Your task to perform on an android device: turn off smart reply in the gmail app Image 0: 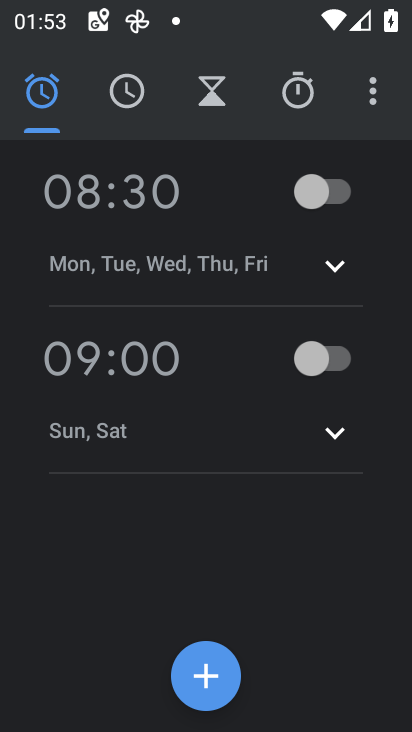
Step 0: press home button
Your task to perform on an android device: turn off smart reply in the gmail app Image 1: 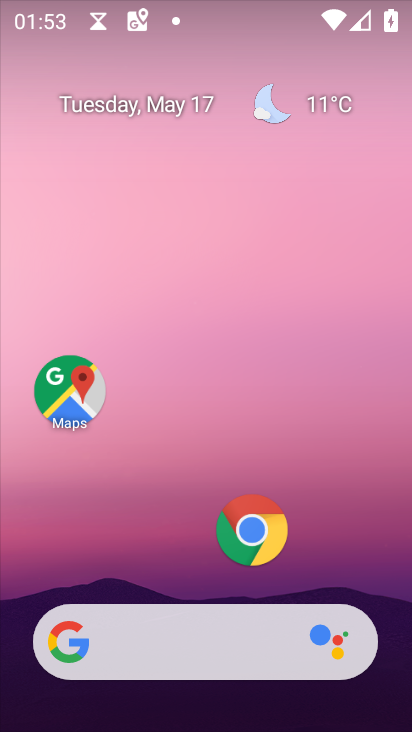
Step 1: drag from (315, 572) to (271, 314)
Your task to perform on an android device: turn off smart reply in the gmail app Image 2: 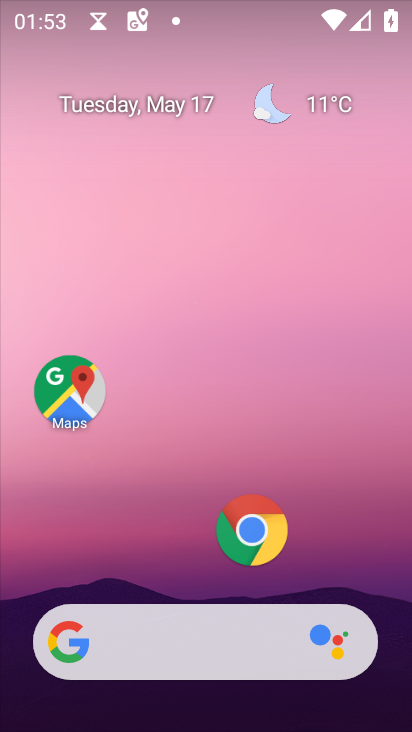
Step 2: drag from (365, 595) to (338, 182)
Your task to perform on an android device: turn off smart reply in the gmail app Image 3: 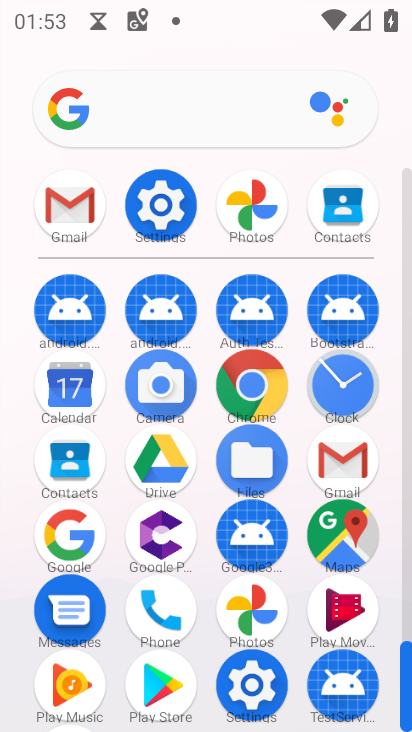
Step 3: click (66, 208)
Your task to perform on an android device: turn off smart reply in the gmail app Image 4: 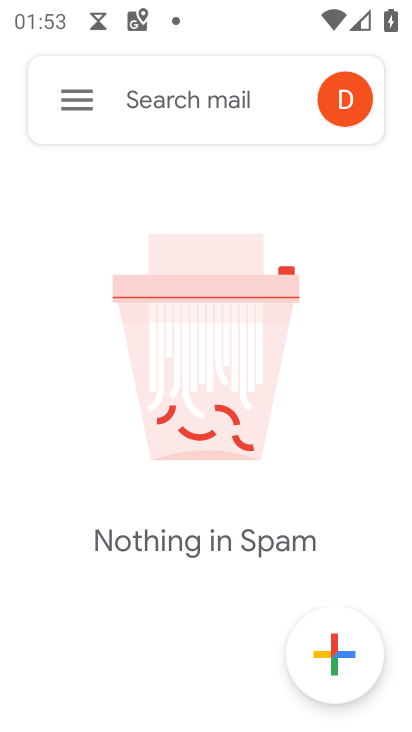
Step 4: click (61, 117)
Your task to perform on an android device: turn off smart reply in the gmail app Image 5: 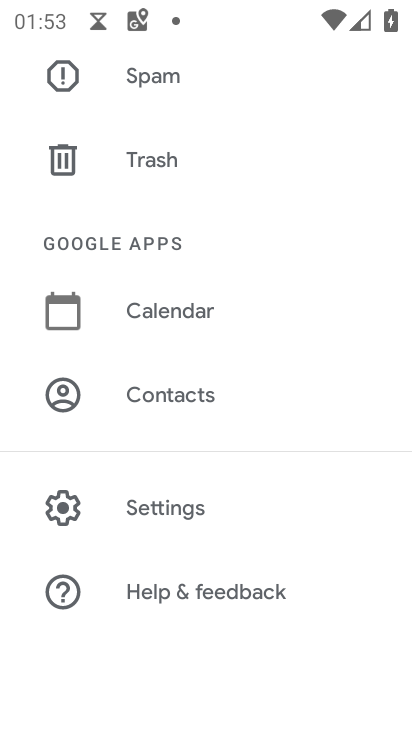
Step 5: drag from (371, 179) to (325, 583)
Your task to perform on an android device: turn off smart reply in the gmail app Image 6: 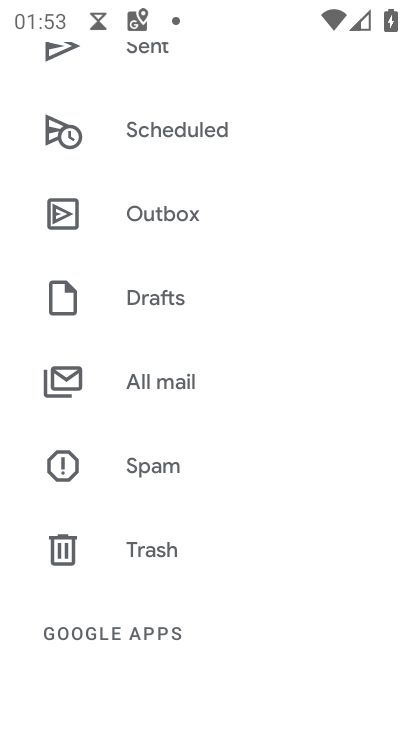
Step 6: click (136, 377)
Your task to perform on an android device: turn off smart reply in the gmail app Image 7: 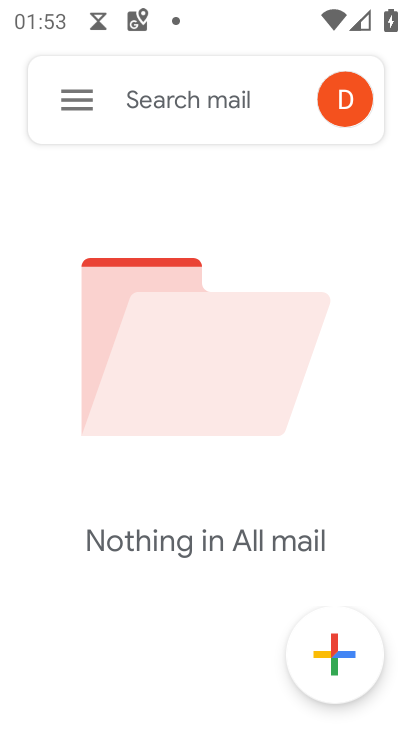
Step 7: click (62, 95)
Your task to perform on an android device: turn off smart reply in the gmail app Image 8: 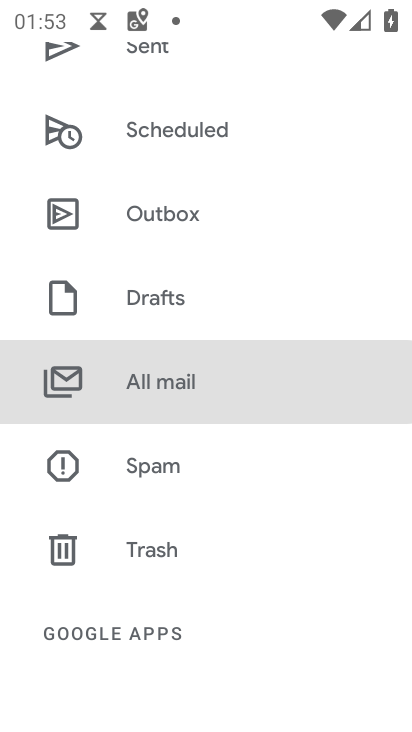
Step 8: drag from (239, 65) to (246, 558)
Your task to perform on an android device: turn off smart reply in the gmail app Image 9: 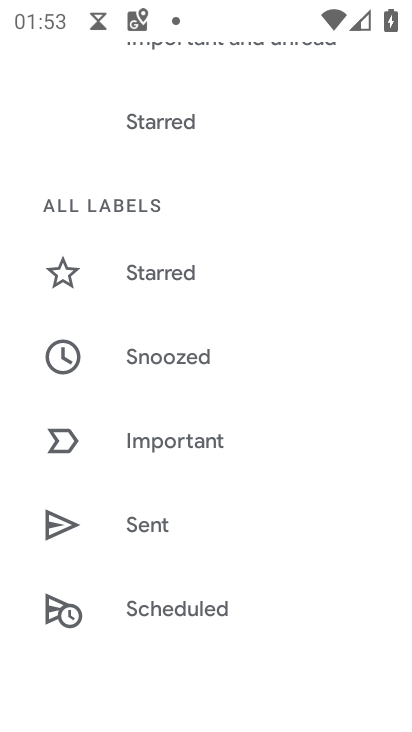
Step 9: drag from (262, 240) to (261, 572)
Your task to perform on an android device: turn off smart reply in the gmail app Image 10: 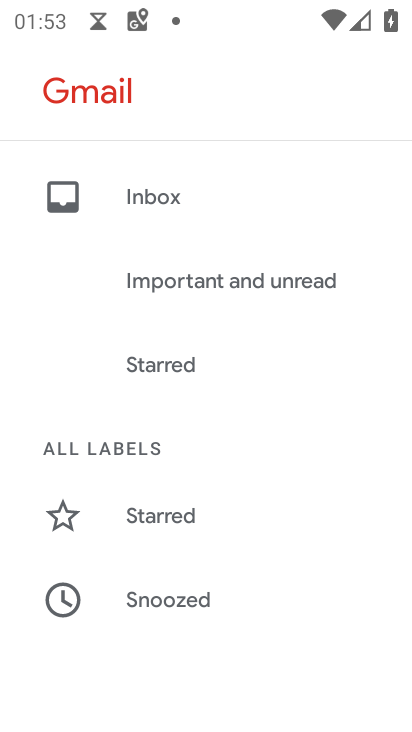
Step 10: click (201, 196)
Your task to perform on an android device: turn off smart reply in the gmail app Image 11: 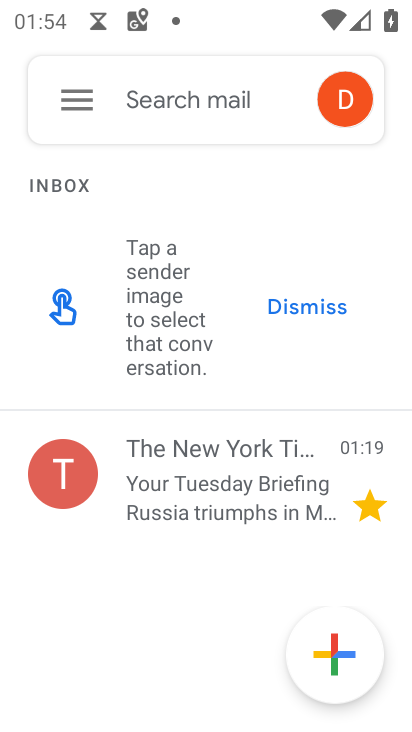
Step 11: task complete